Your task to perform on an android device: Open eBay Image 0: 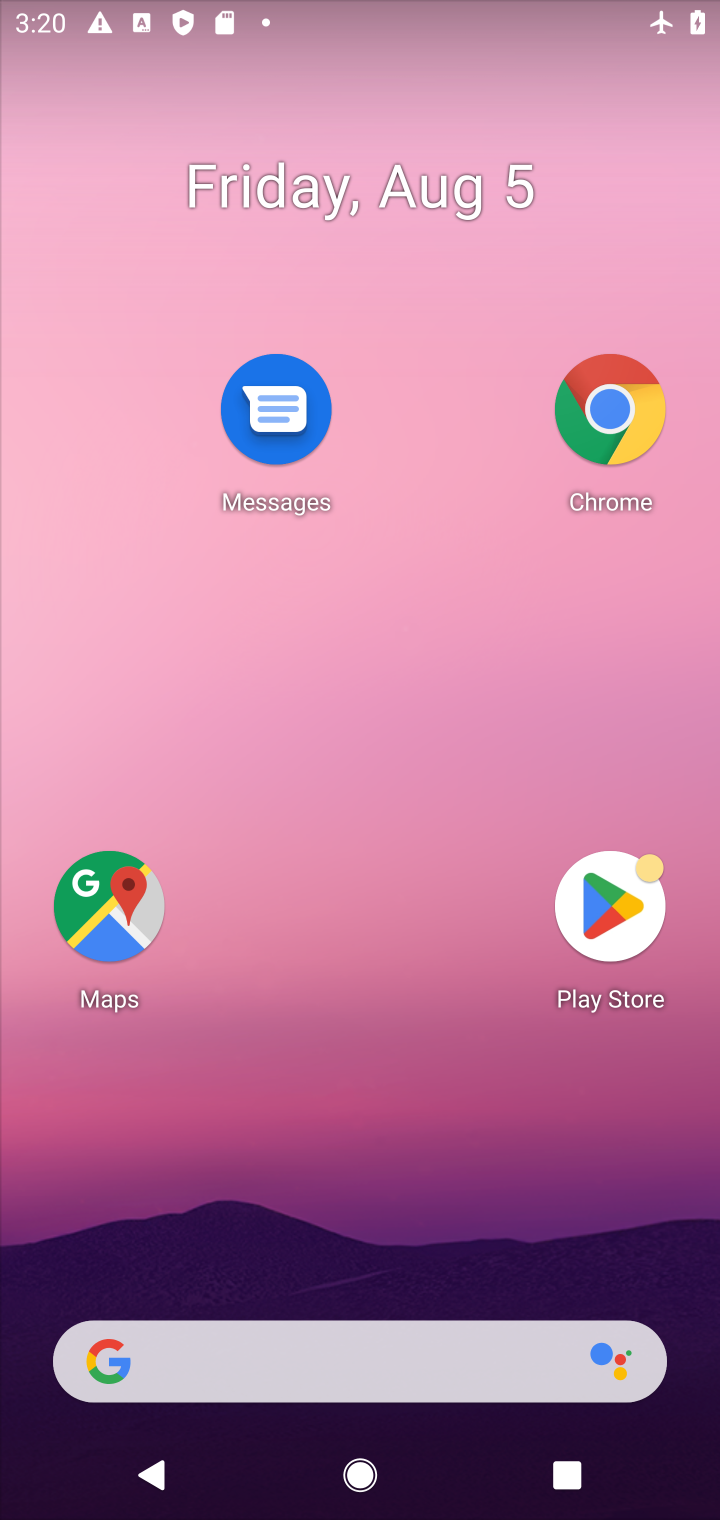
Step 0: click (615, 425)
Your task to perform on an android device: Open eBay Image 1: 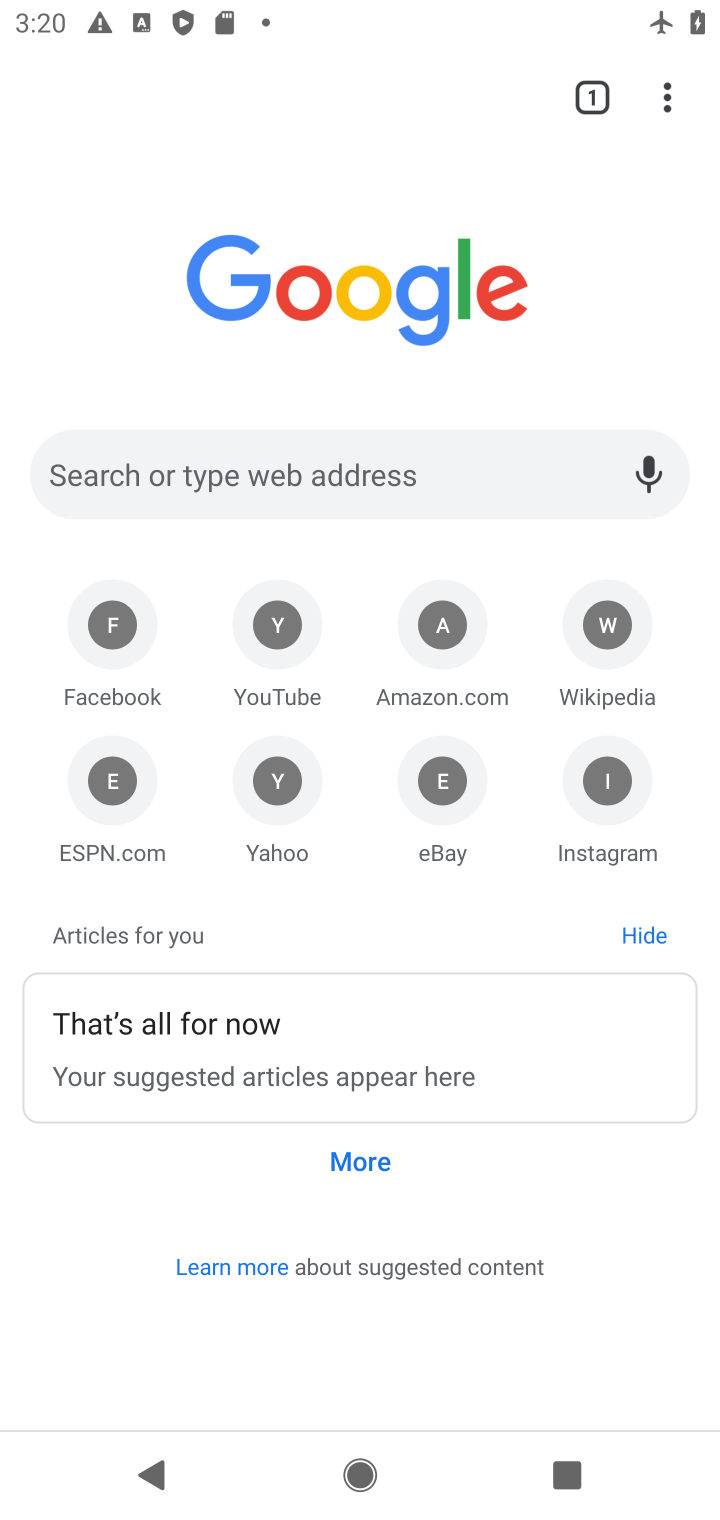
Step 1: click (290, 446)
Your task to perform on an android device: Open eBay Image 2: 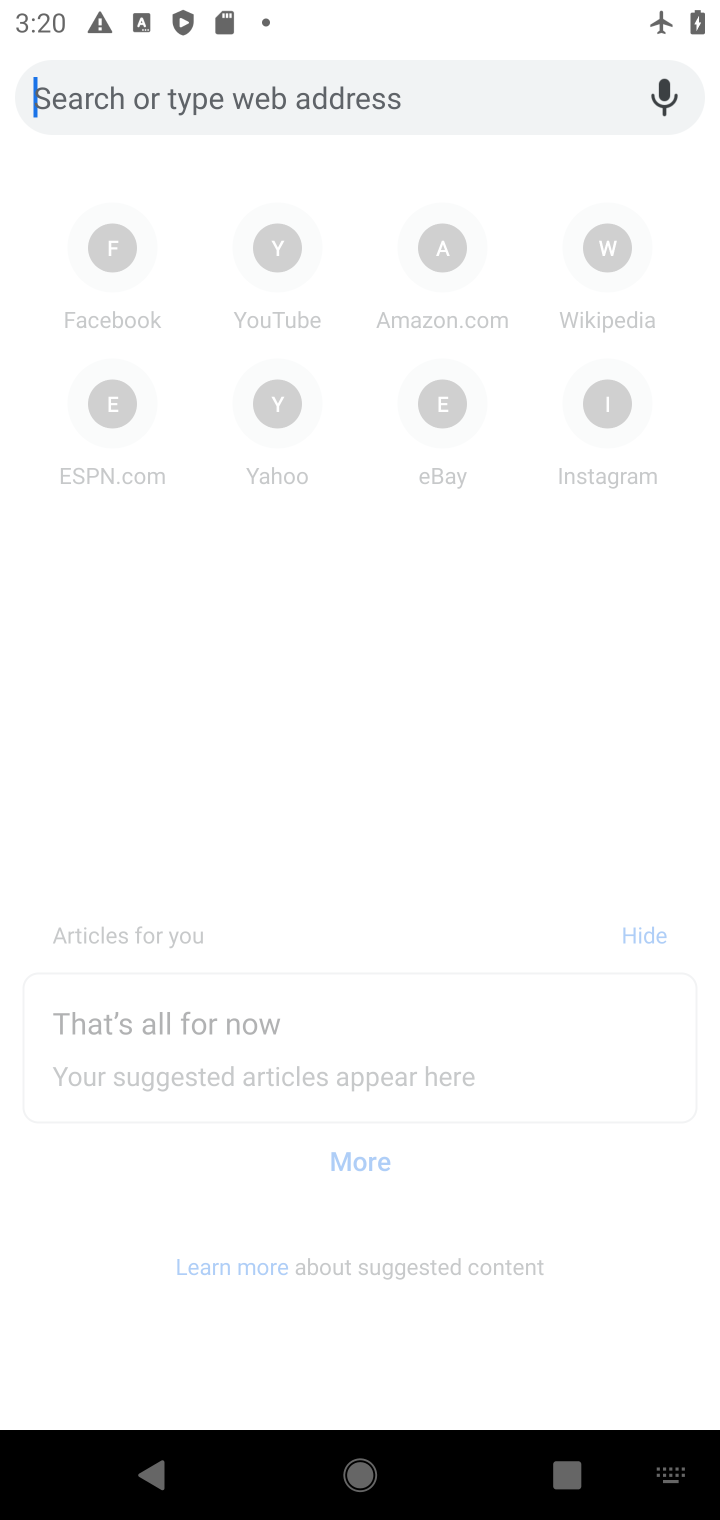
Step 2: click (456, 405)
Your task to perform on an android device: Open eBay Image 3: 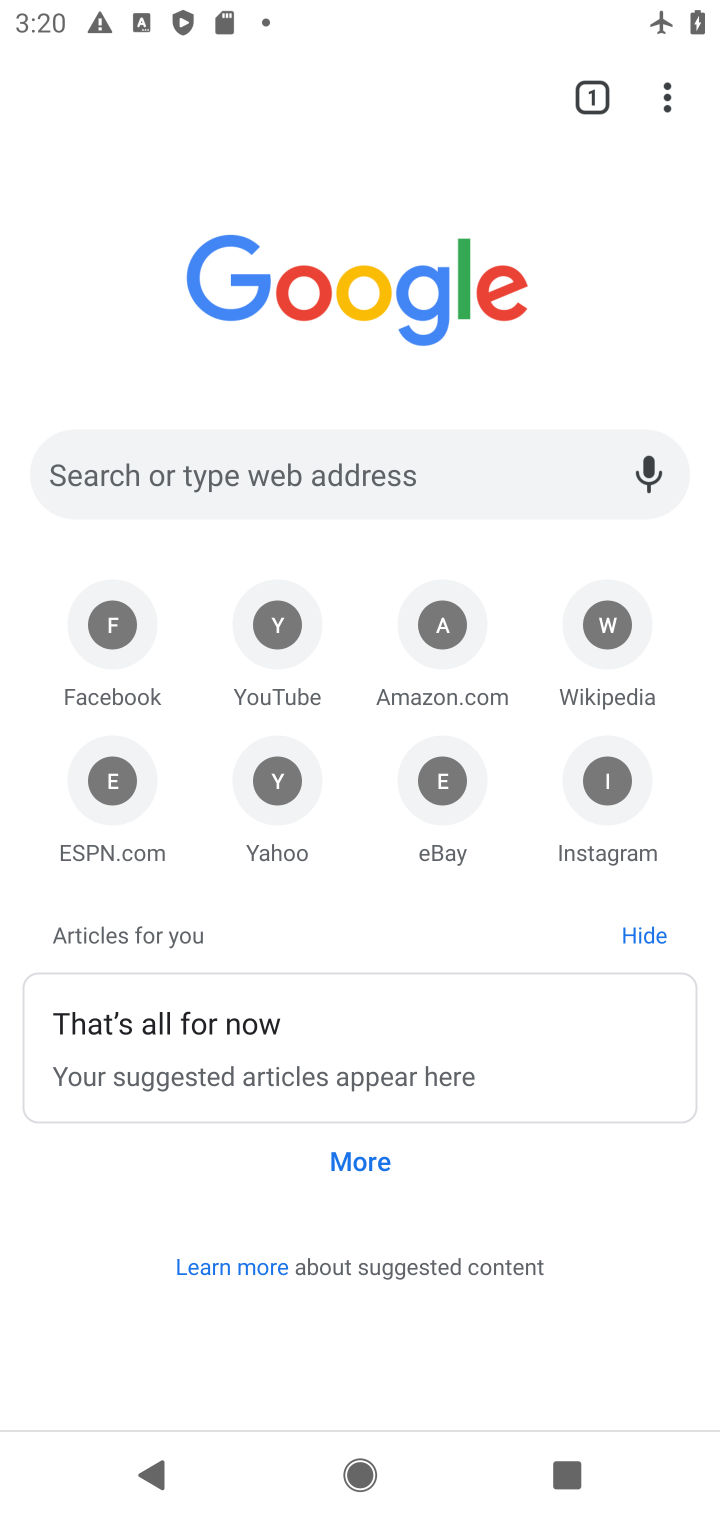
Step 3: click (419, 755)
Your task to perform on an android device: Open eBay Image 4: 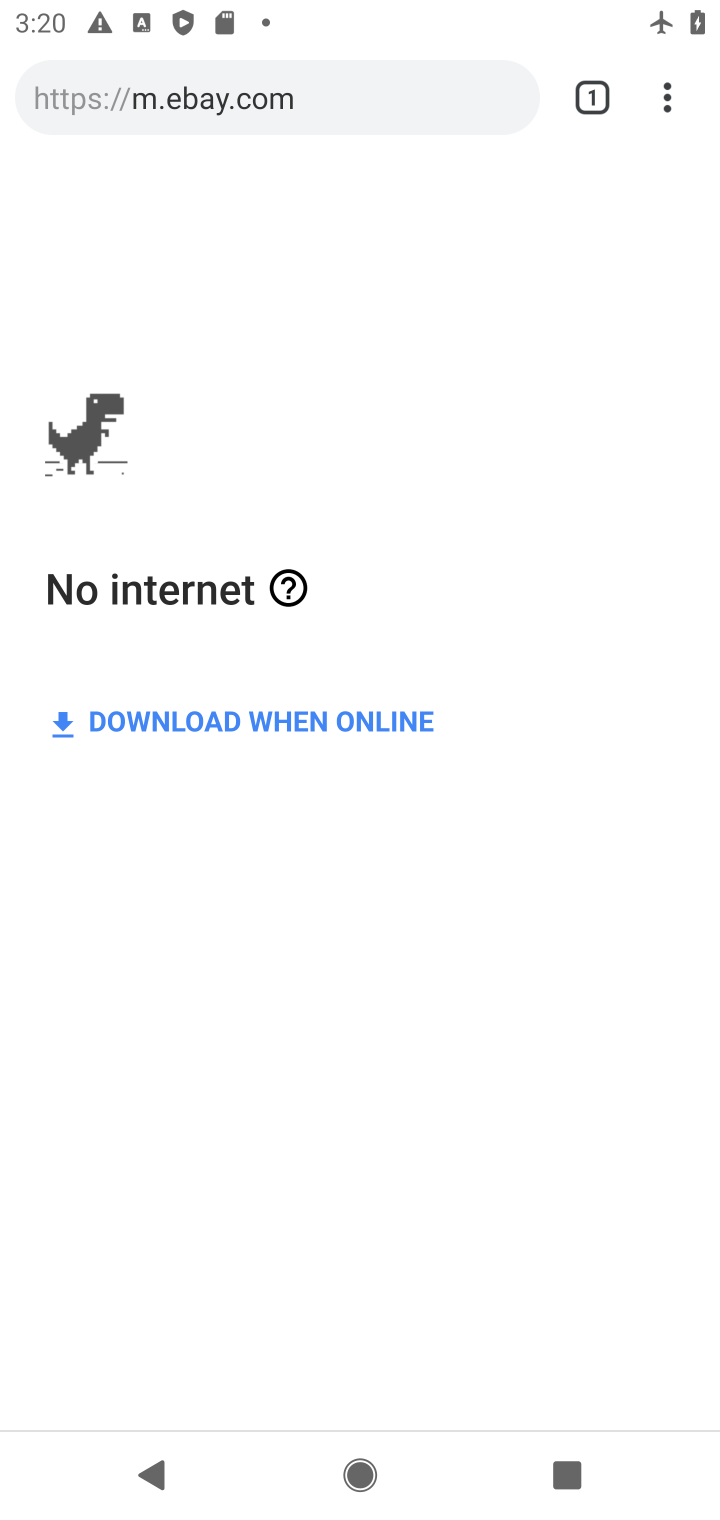
Step 4: task complete